Your task to perform on an android device: Open the stopwatch Image 0: 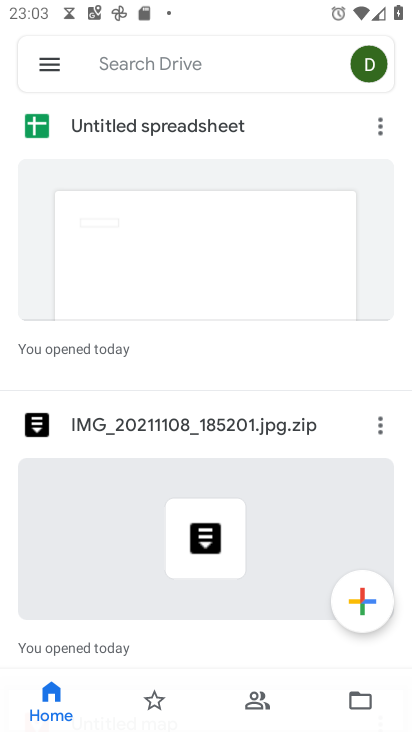
Step 0: press home button
Your task to perform on an android device: Open the stopwatch Image 1: 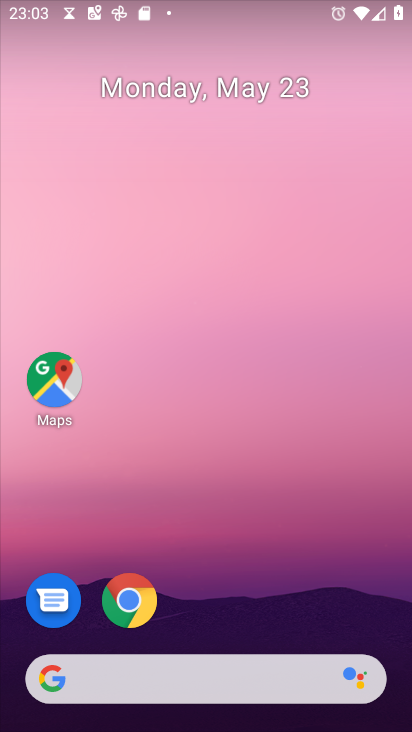
Step 1: drag from (241, 722) to (229, 95)
Your task to perform on an android device: Open the stopwatch Image 2: 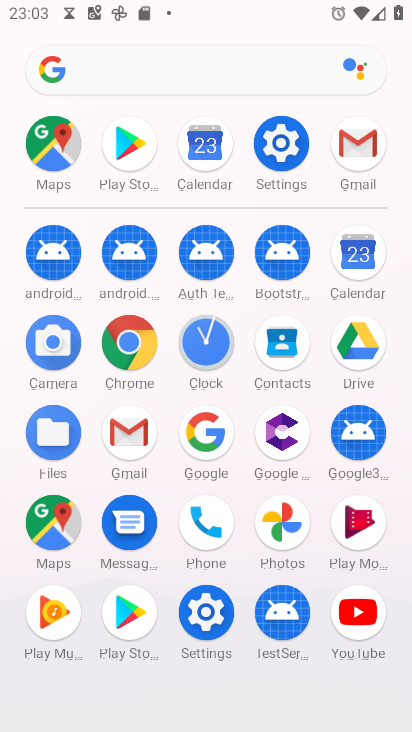
Step 2: click (204, 353)
Your task to perform on an android device: Open the stopwatch Image 3: 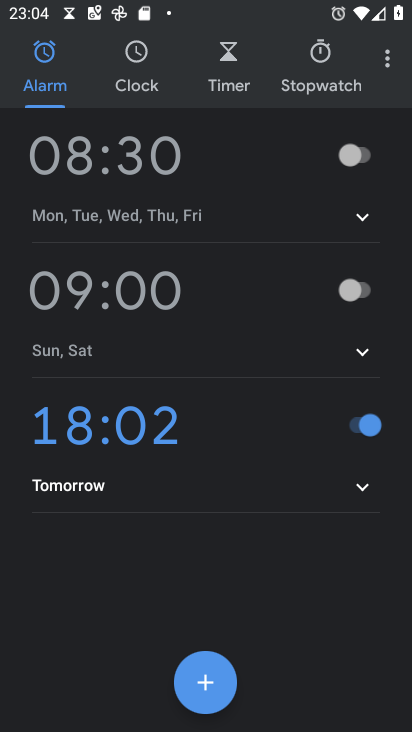
Step 3: click (319, 63)
Your task to perform on an android device: Open the stopwatch Image 4: 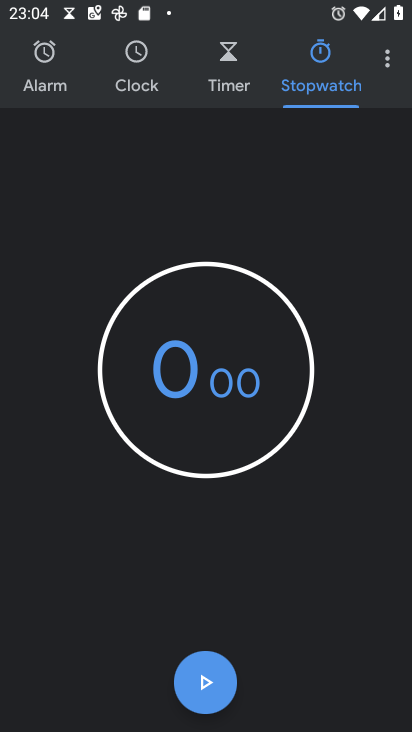
Step 4: task complete